Your task to perform on an android device: Open Google Maps Image 0: 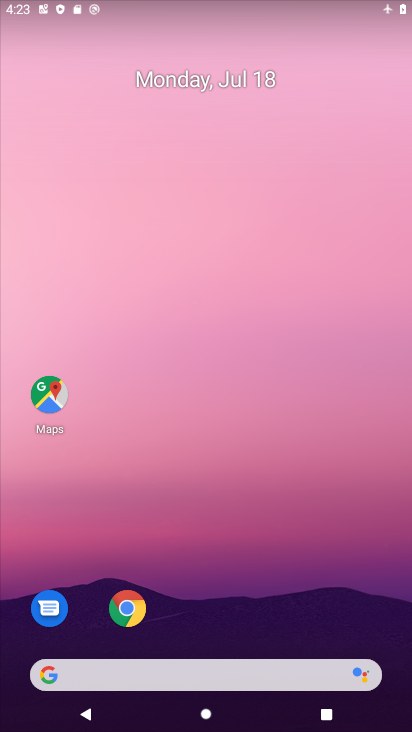
Step 0: drag from (243, 563) to (167, 149)
Your task to perform on an android device: Open Google Maps Image 1: 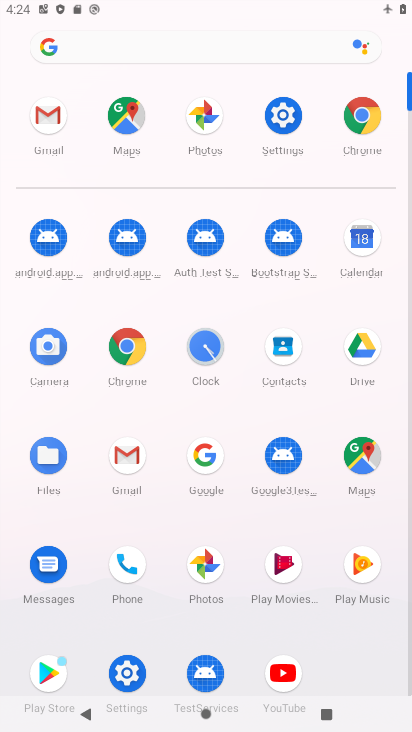
Step 1: click (131, 124)
Your task to perform on an android device: Open Google Maps Image 2: 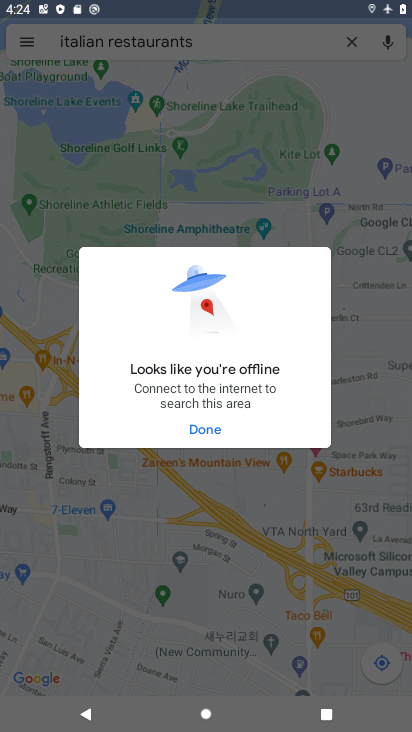
Step 2: task complete